Your task to perform on an android device: What is the recent news? Image 0: 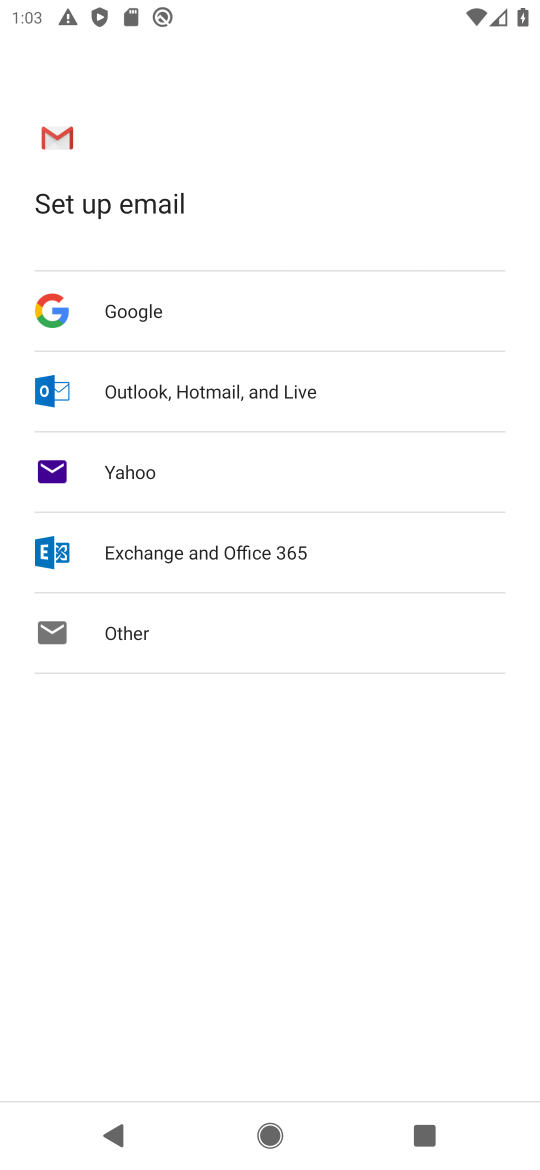
Step 0: press back button
Your task to perform on an android device: What is the recent news? Image 1: 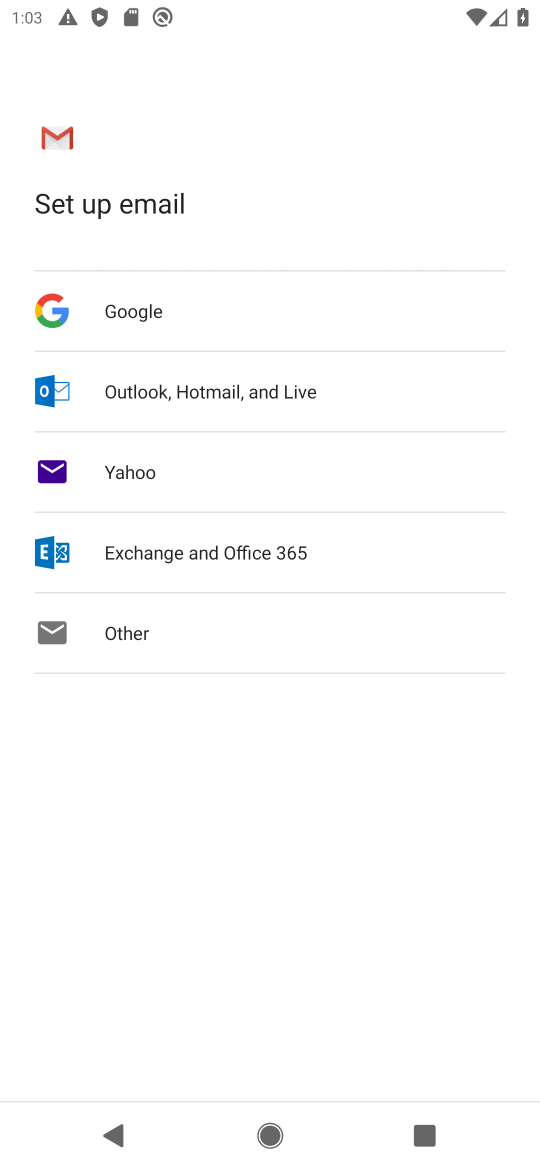
Step 1: press home button
Your task to perform on an android device: What is the recent news? Image 2: 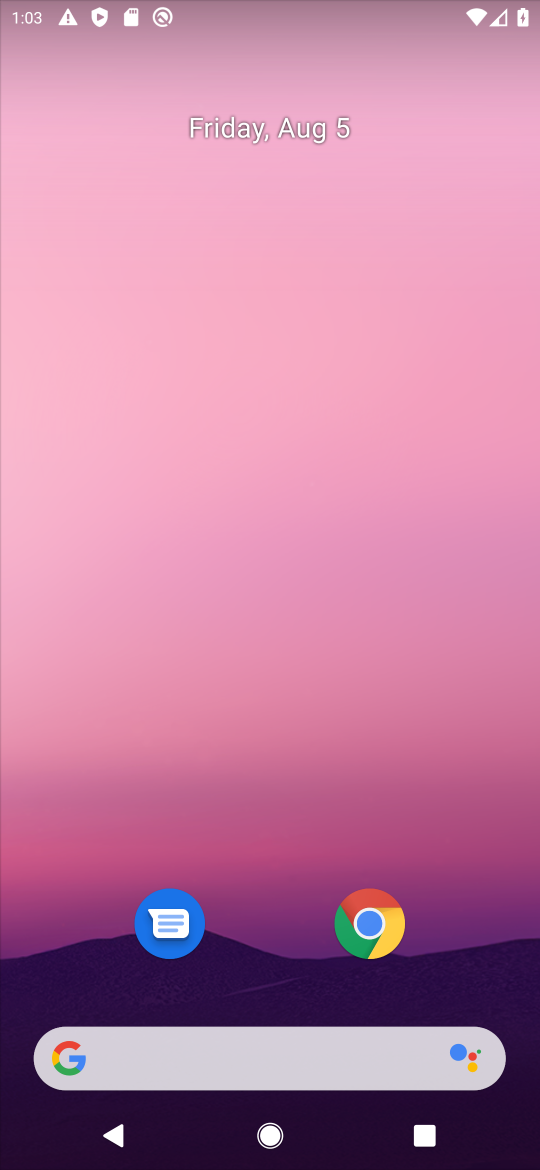
Step 2: click (149, 1058)
Your task to perform on an android device: What is the recent news? Image 3: 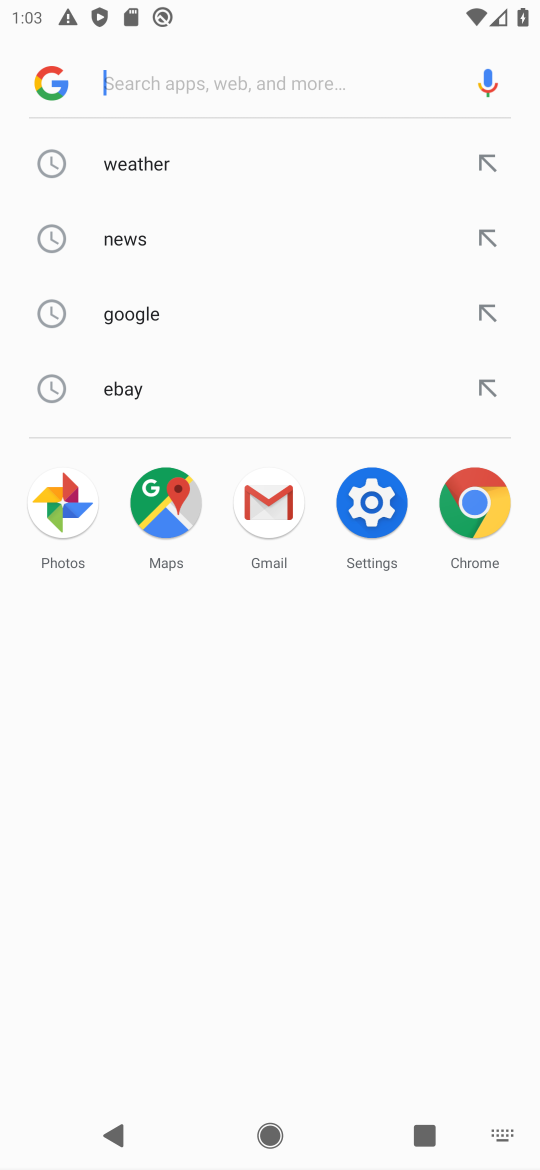
Step 3: click (165, 236)
Your task to perform on an android device: What is the recent news? Image 4: 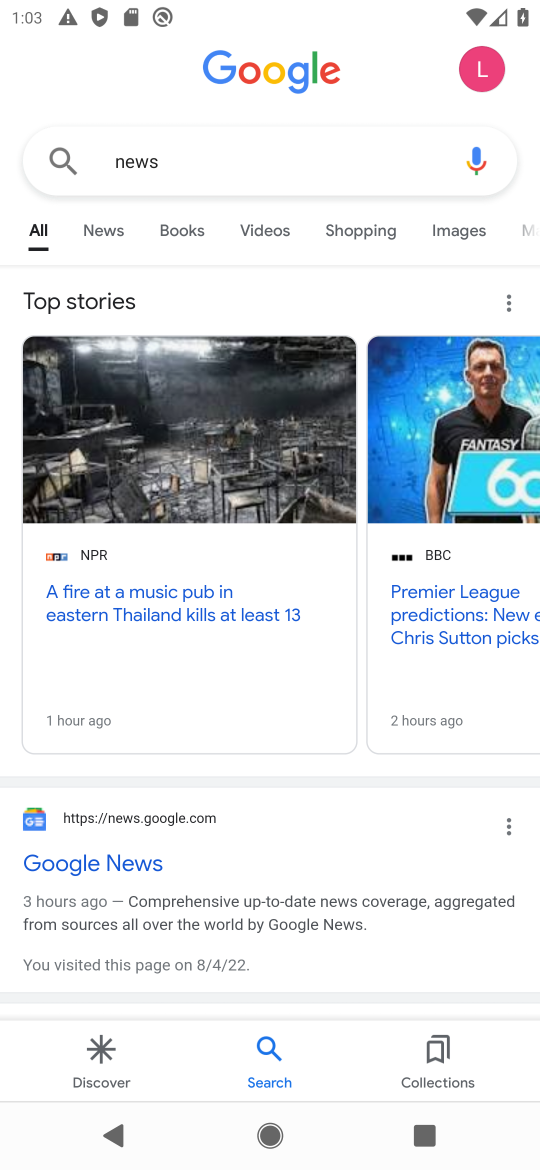
Step 4: click (108, 240)
Your task to perform on an android device: What is the recent news? Image 5: 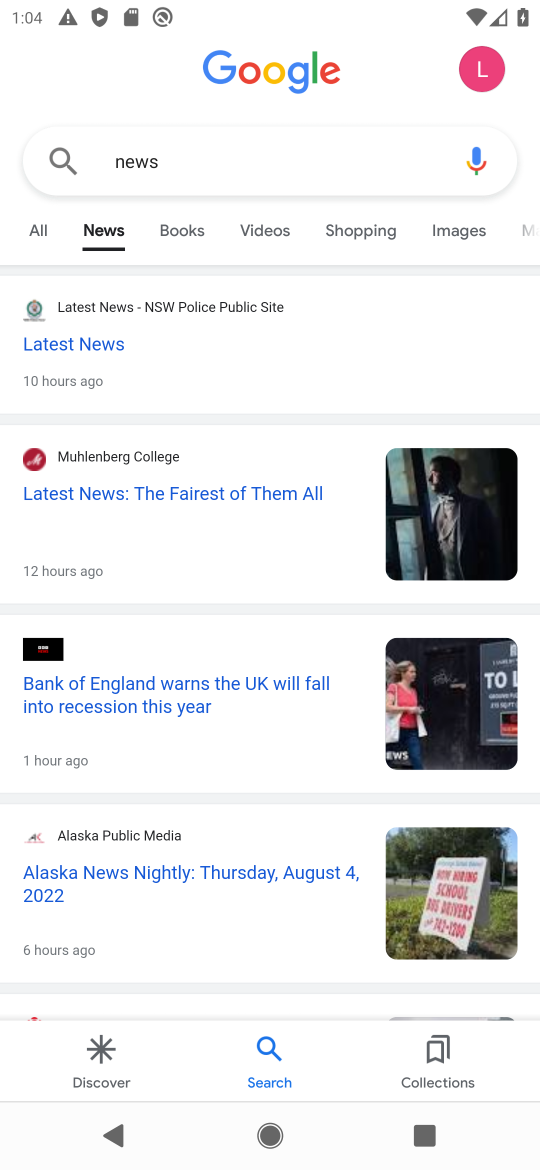
Step 5: task complete